Your task to perform on an android device: Open location settings Image 0: 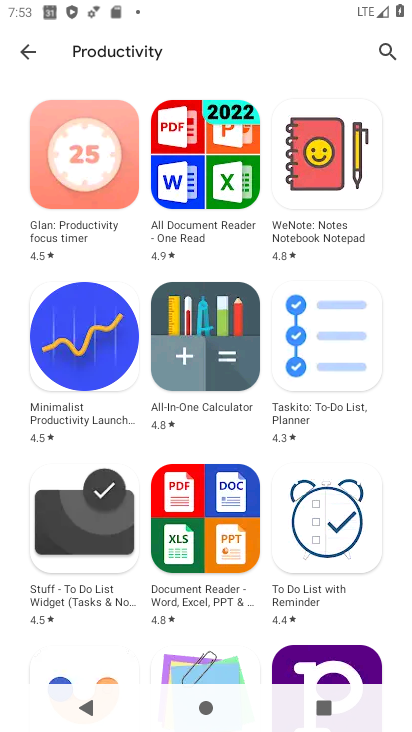
Step 0: press home button
Your task to perform on an android device: Open location settings Image 1: 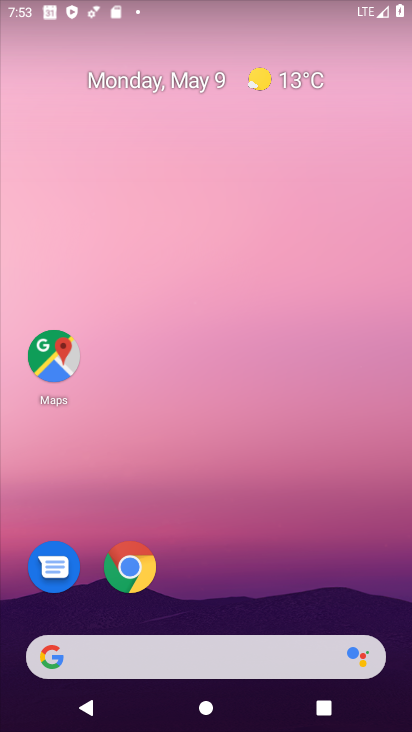
Step 1: drag from (274, 560) to (189, 24)
Your task to perform on an android device: Open location settings Image 2: 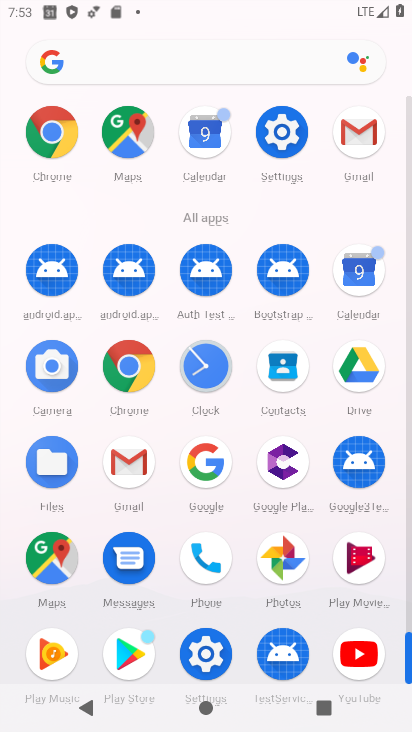
Step 2: click (269, 128)
Your task to perform on an android device: Open location settings Image 3: 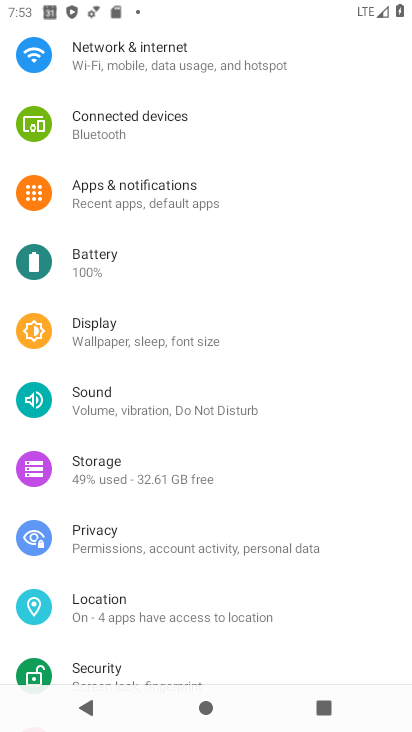
Step 3: click (141, 616)
Your task to perform on an android device: Open location settings Image 4: 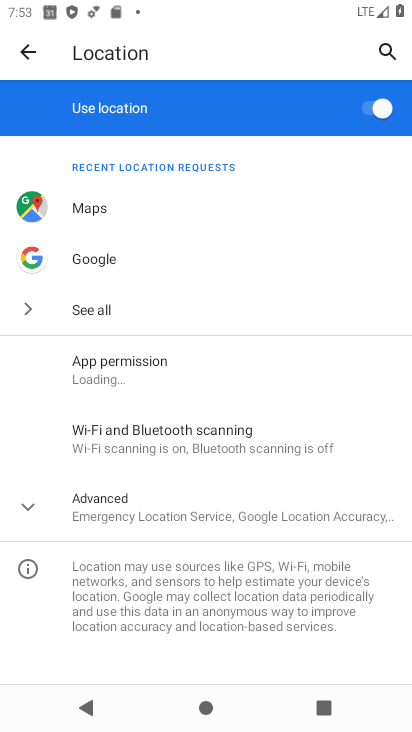
Step 4: task complete